Your task to perform on an android device: open chrome privacy settings Image 0: 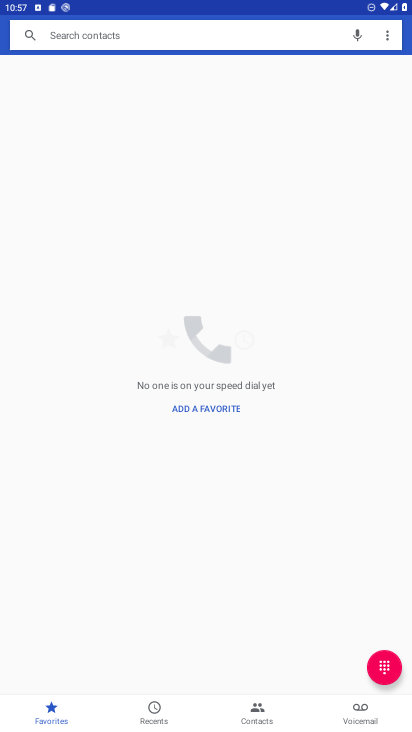
Step 0: press home button
Your task to perform on an android device: open chrome privacy settings Image 1: 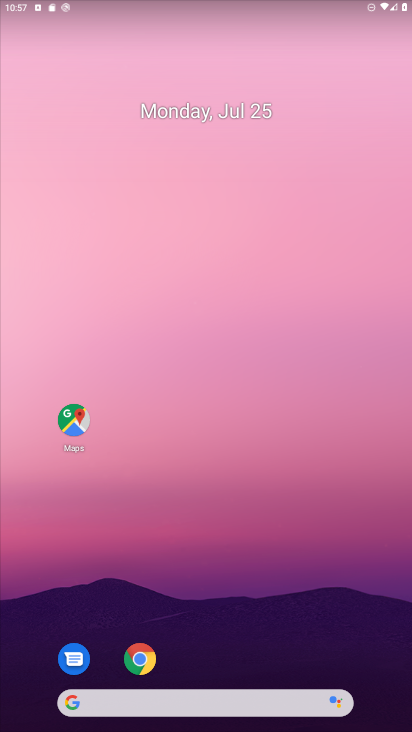
Step 1: click (140, 661)
Your task to perform on an android device: open chrome privacy settings Image 2: 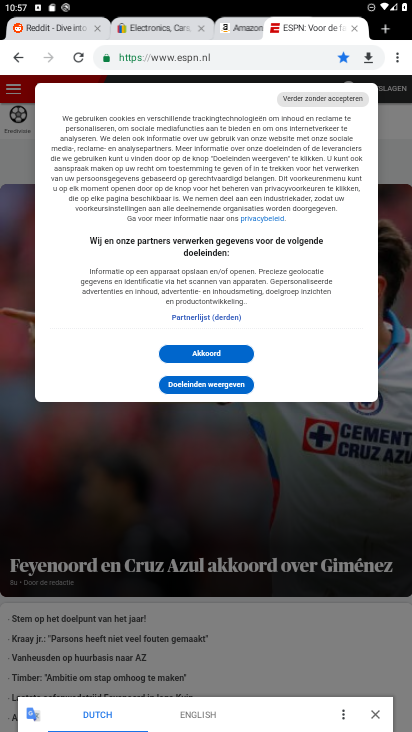
Step 2: click (390, 51)
Your task to perform on an android device: open chrome privacy settings Image 3: 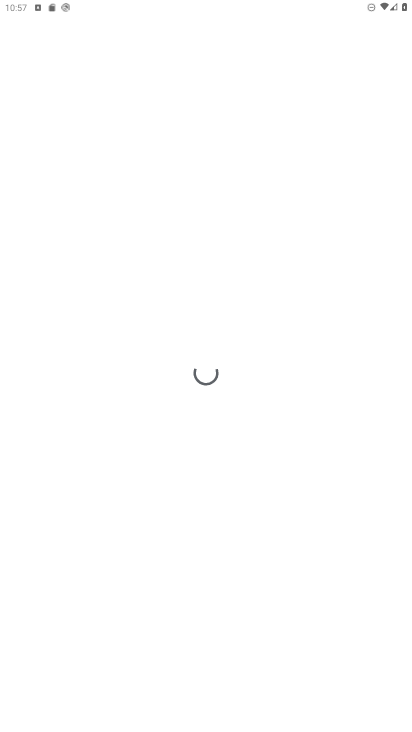
Step 3: click (390, 51)
Your task to perform on an android device: open chrome privacy settings Image 4: 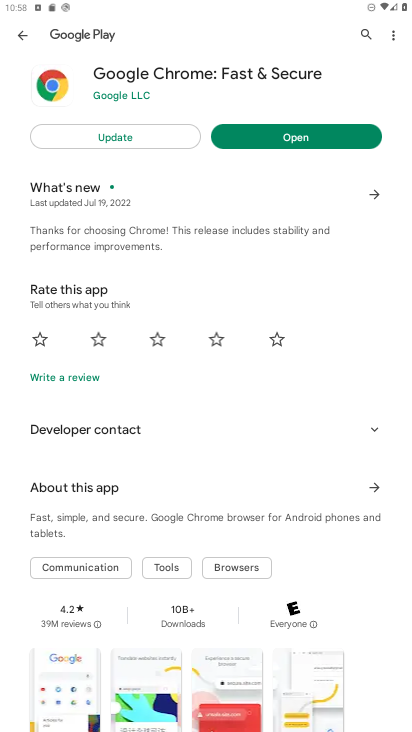
Step 4: click (282, 143)
Your task to perform on an android device: open chrome privacy settings Image 5: 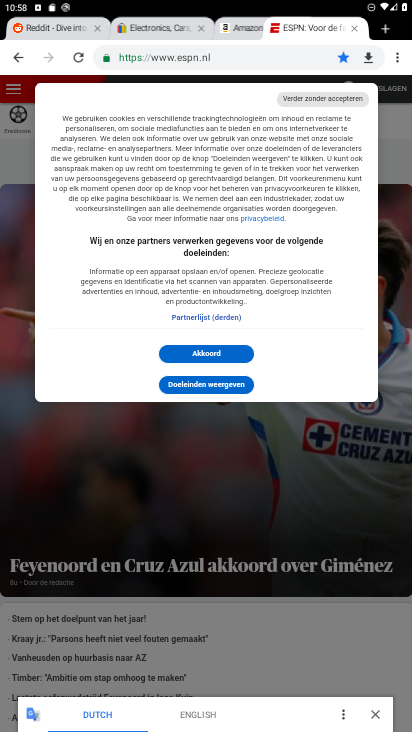
Step 5: drag from (390, 56) to (300, 412)
Your task to perform on an android device: open chrome privacy settings Image 6: 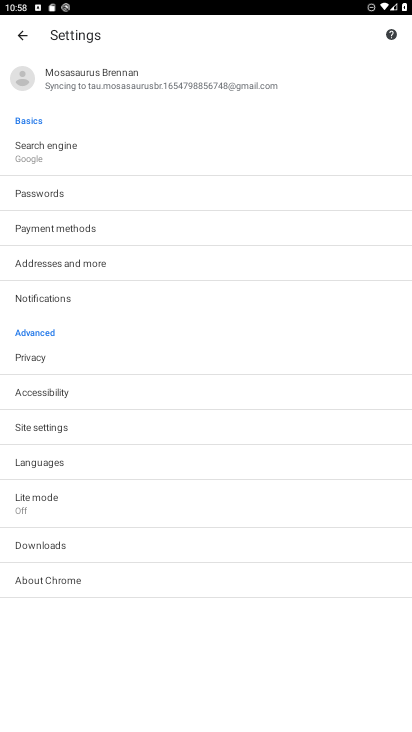
Step 6: click (67, 356)
Your task to perform on an android device: open chrome privacy settings Image 7: 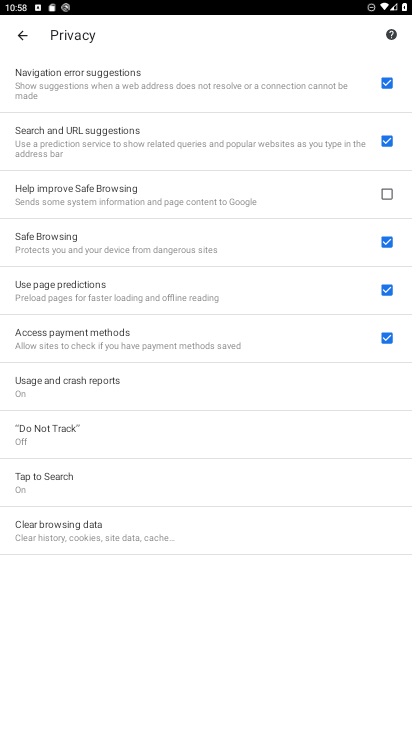
Step 7: task complete